Your task to perform on an android device: set the stopwatch Image 0: 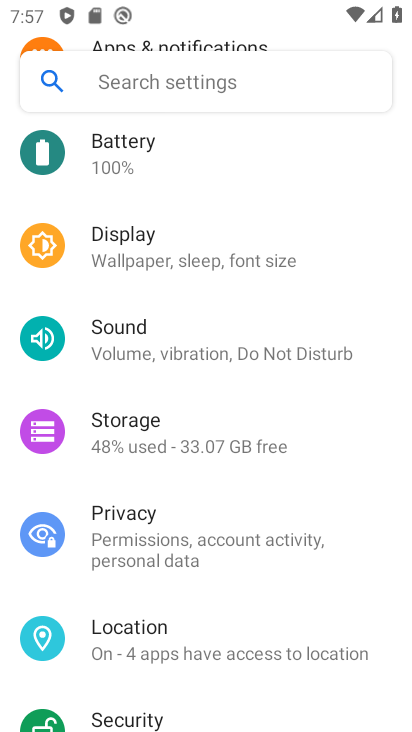
Step 0: press home button
Your task to perform on an android device: set the stopwatch Image 1: 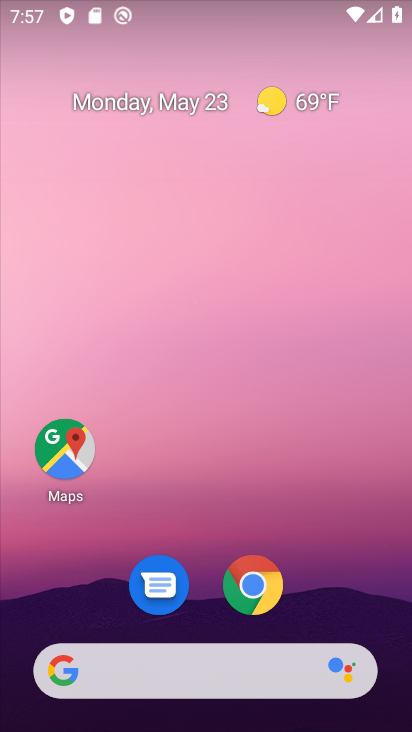
Step 1: drag from (208, 524) to (249, 63)
Your task to perform on an android device: set the stopwatch Image 2: 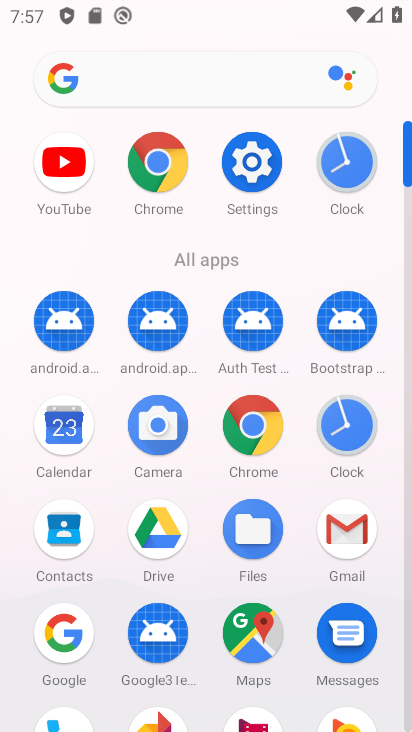
Step 2: click (333, 158)
Your task to perform on an android device: set the stopwatch Image 3: 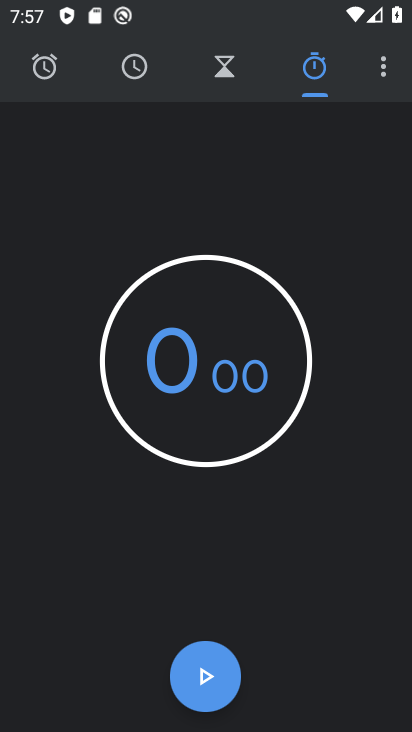
Step 3: click (204, 677)
Your task to perform on an android device: set the stopwatch Image 4: 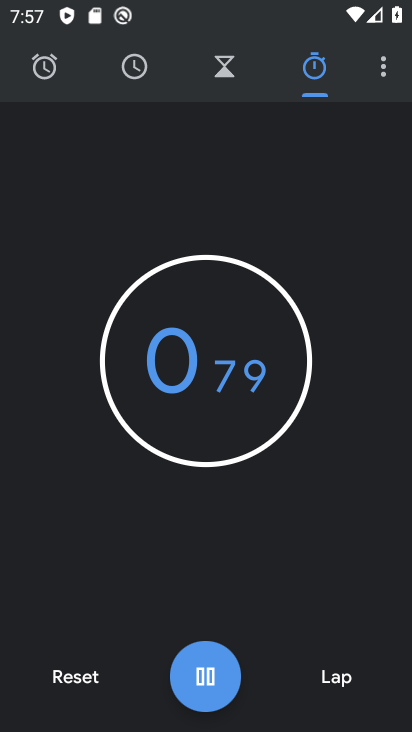
Step 4: click (204, 677)
Your task to perform on an android device: set the stopwatch Image 5: 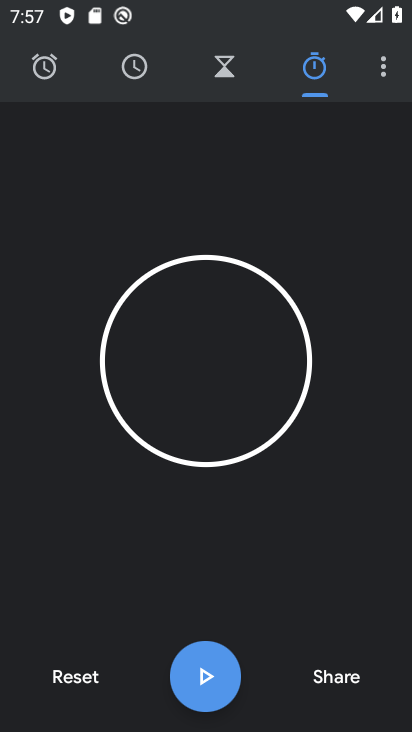
Step 5: task complete